Your task to perform on an android device: Open accessibility settings Image 0: 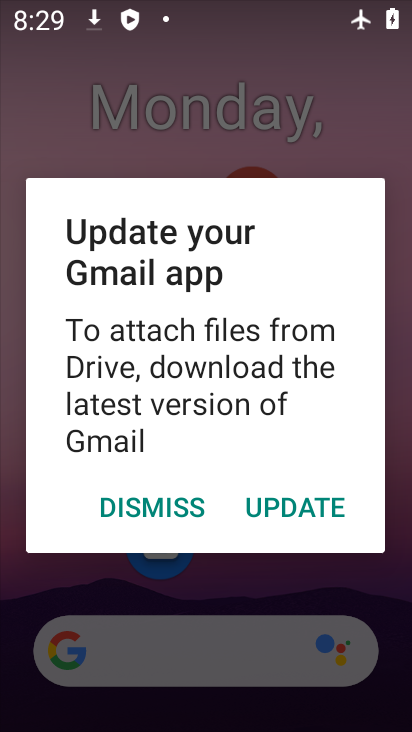
Step 0: press home button
Your task to perform on an android device: Open accessibility settings Image 1: 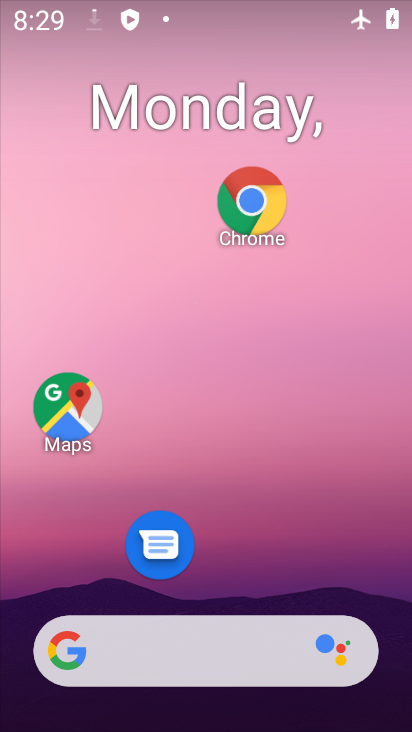
Step 1: drag from (257, 576) to (257, 98)
Your task to perform on an android device: Open accessibility settings Image 2: 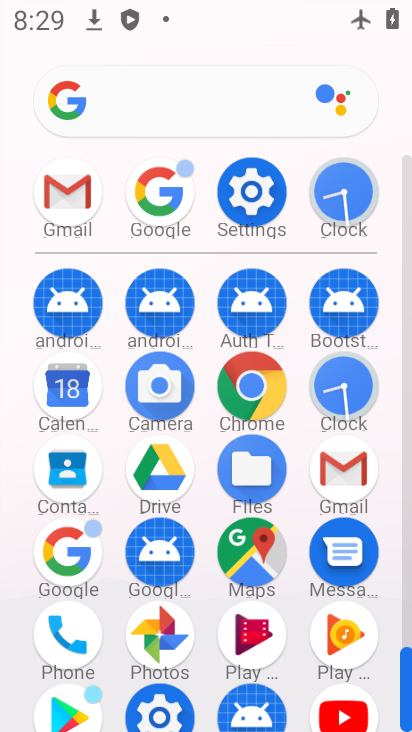
Step 2: click (255, 184)
Your task to perform on an android device: Open accessibility settings Image 3: 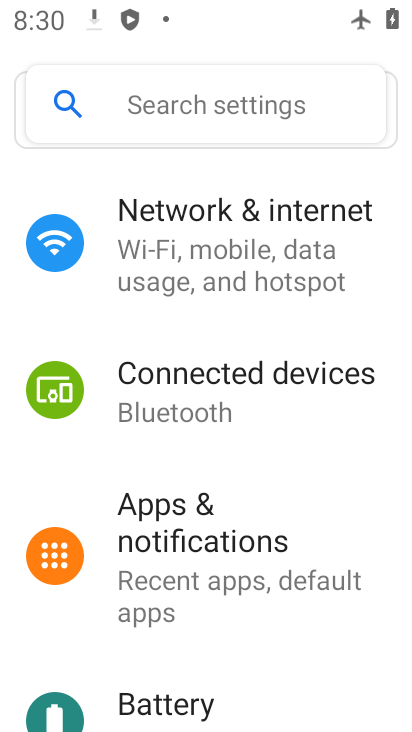
Step 3: drag from (226, 640) to (252, 205)
Your task to perform on an android device: Open accessibility settings Image 4: 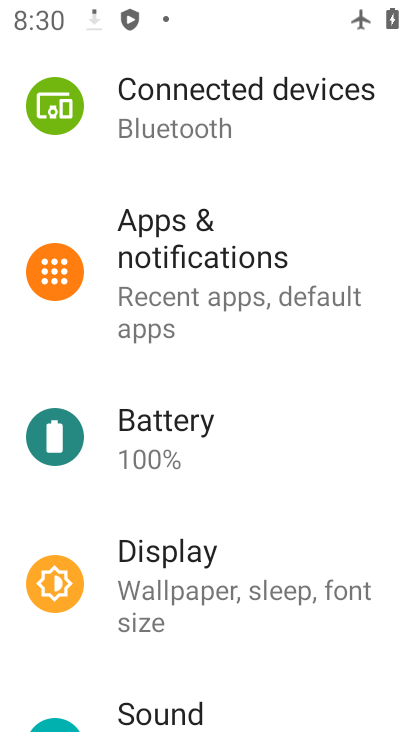
Step 4: drag from (248, 468) to (246, 219)
Your task to perform on an android device: Open accessibility settings Image 5: 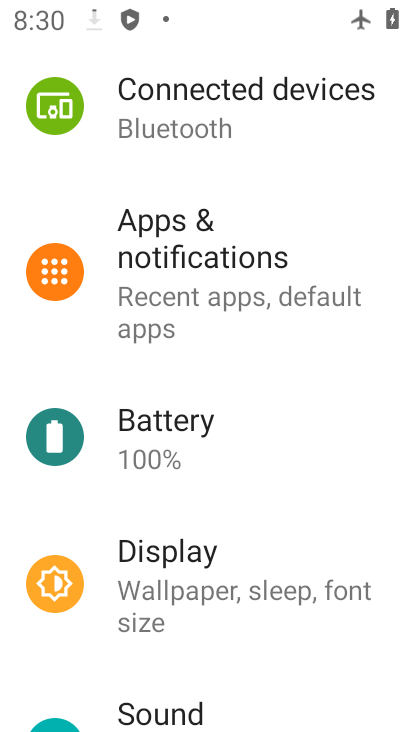
Step 5: drag from (243, 666) to (251, 254)
Your task to perform on an android device: Open accessibility settings Image 6: 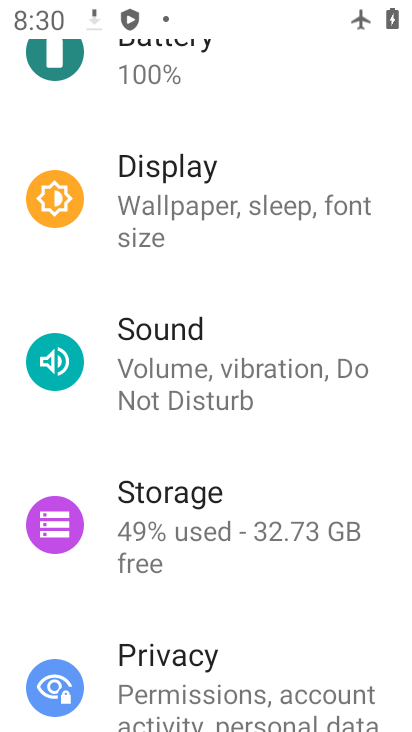
Step 6: drag from (230, 602) to (256, 315)
Your task to perform on an android device: Open accessibility settings Image 7: 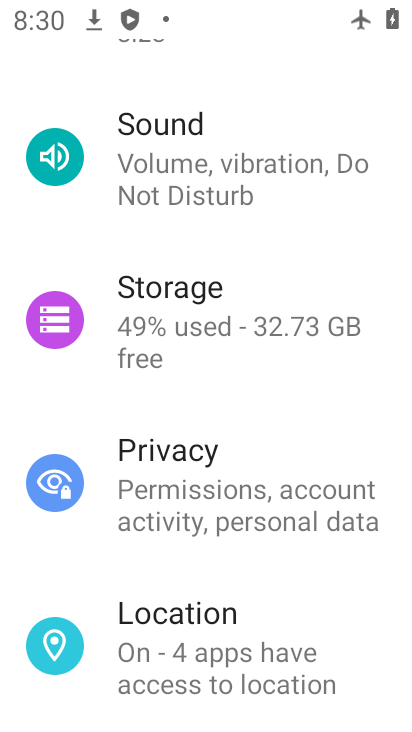
Step 7: drag from (281, 624) to (289, 245)
Your task to perform on an android device: Open accessibility settings Image 8: 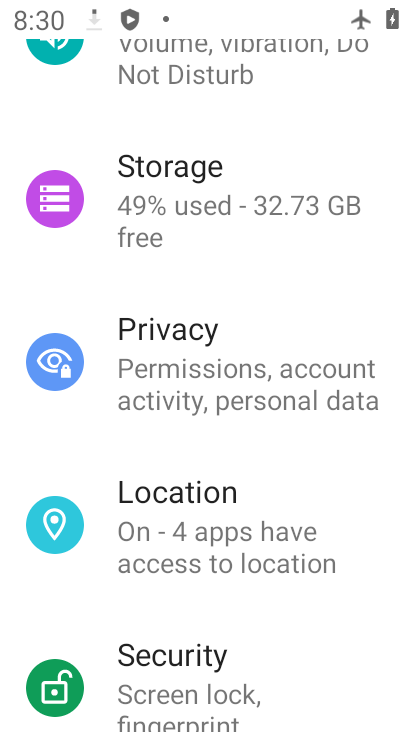
Step 8: drag from (264, 615) to (287, 307)
Your task to perform on an android device: Open accessibility settings Image 9: 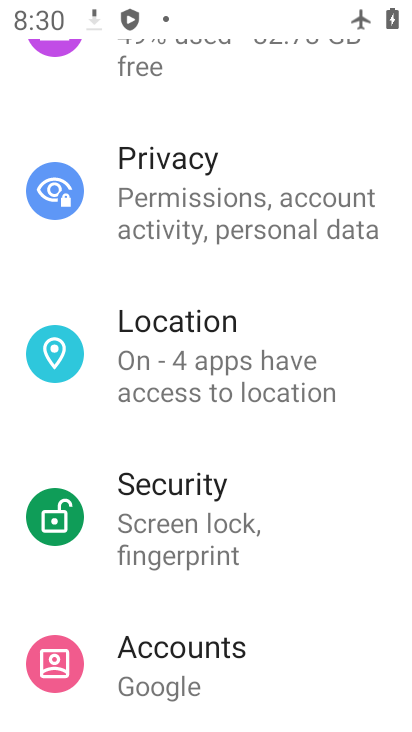
Step 9: drag from (276, 584) to (299, 184)
Your task to perform on an android device: Open accessibility settings Image 10: 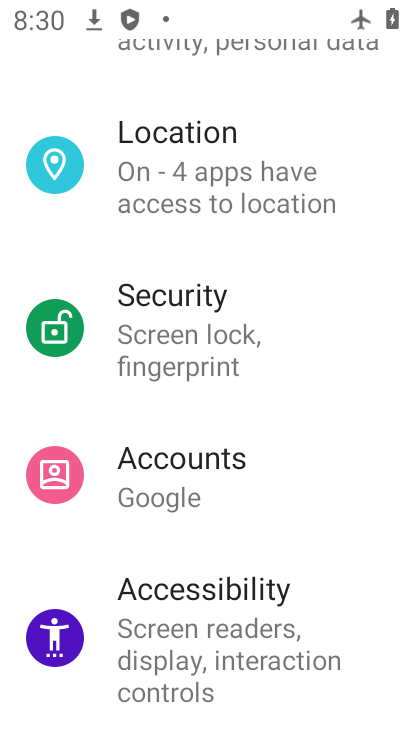
Step 10: click (230, 592)
Your task to perform on an android device: Open accessibility settings Image 11: 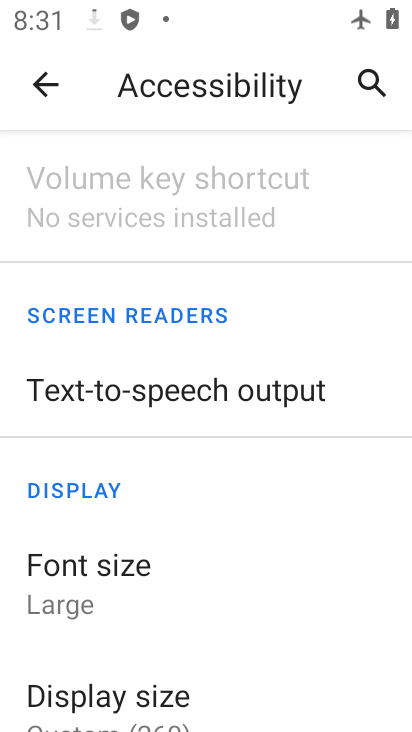
Step 11: task complete